Your task to perform on an android device: Check the weather Image 0: 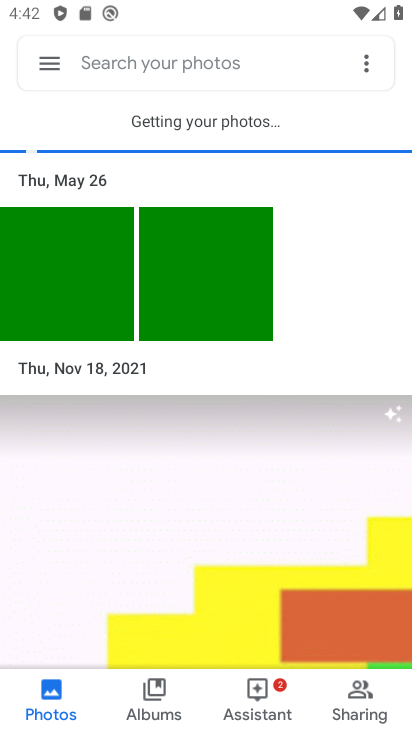
Step 0: press home button
Your task to perform on an android device: Check the weather Image 1: 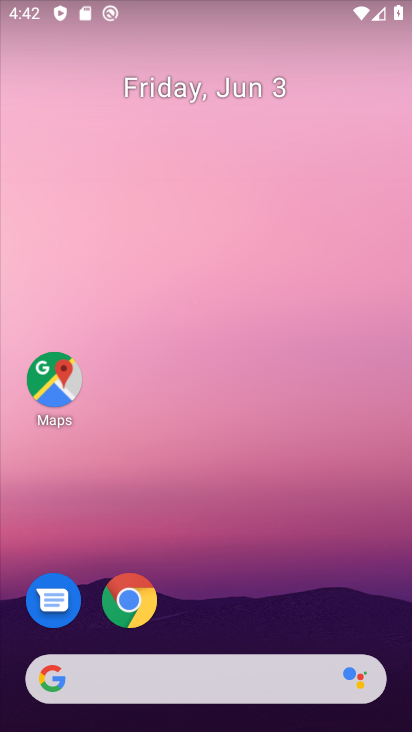
Step 1: click (155, 684)
Your task to perform on an android device: Check the weather Image 2: 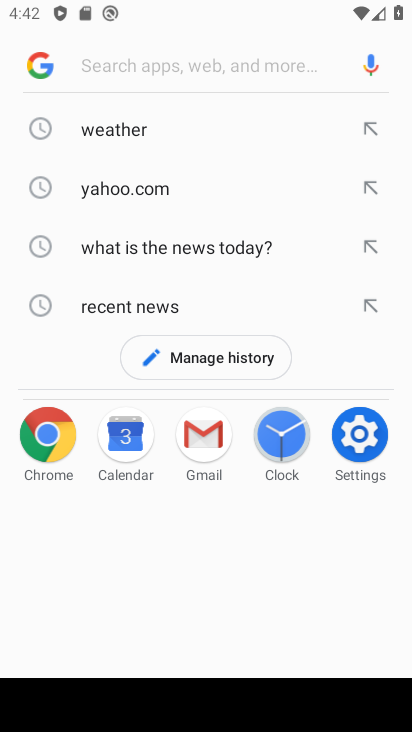
Step 2: click (131, 126)
Your task to perform on an android device: Check the weather Image 3: 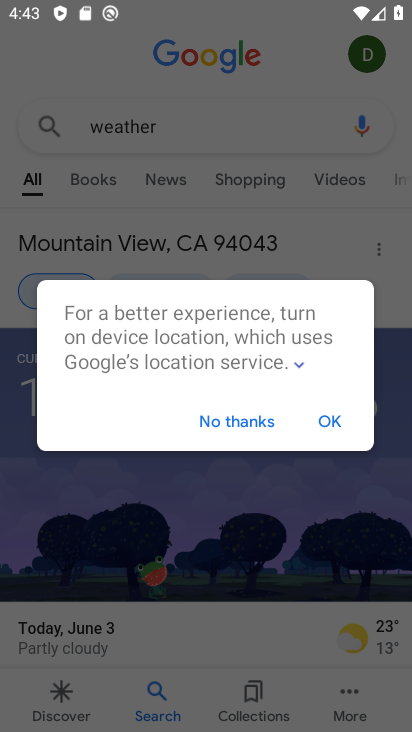
Step 3: click (269, 420)
Your task to perform on an android device: Check the weather Image 4: 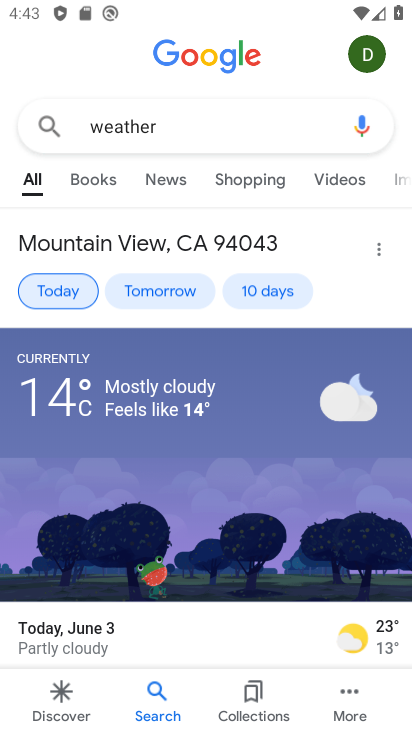
Step 4: task complete